Your task to perform on an android device: Go to accessibility settings Image 0: 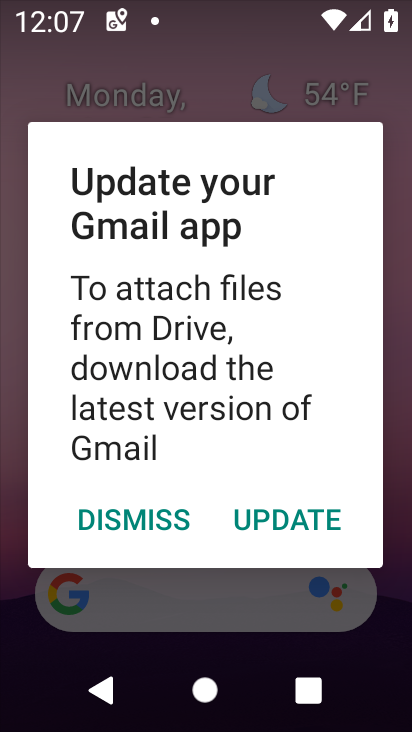
Step 0: press home button
Your task to perform on an android device: Go to accessibility settings Image 1: 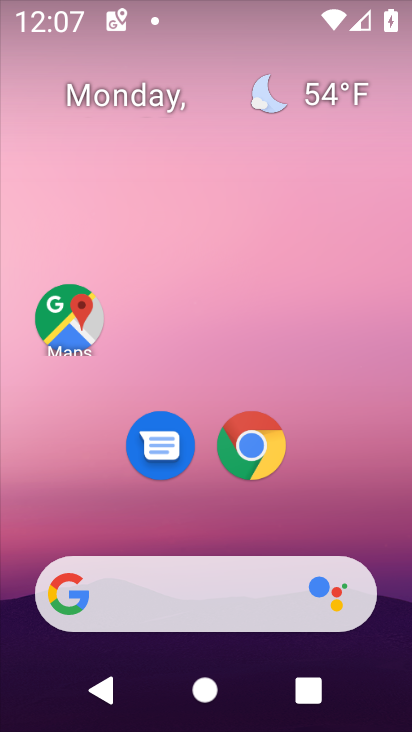
Step 1: drag from (387, 495) to (361, 94)
Your task to perform on an android device: Go to accessibility settings Image 2: 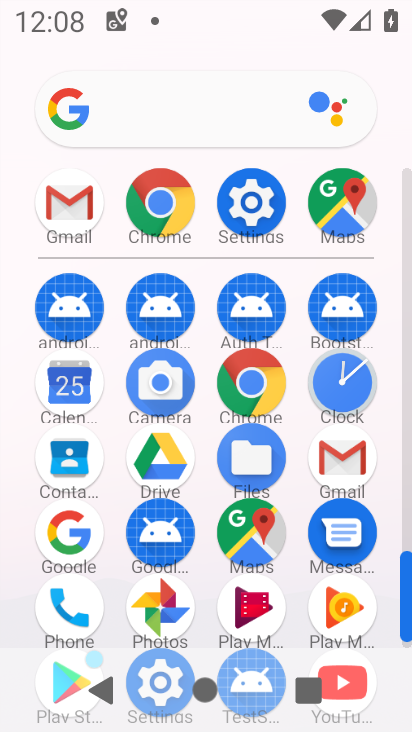
Step 2: click (224, 197)
Your task to perform on an android device: Go to accessibility settings Image 3: 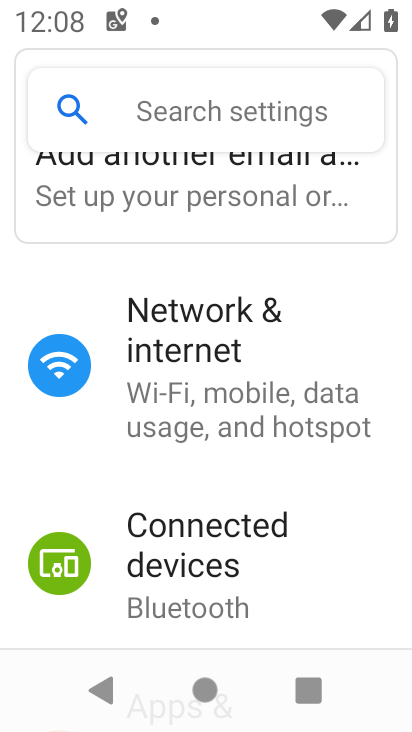
Step 3: drag from (268, 312) to (289, 595)
Your task to perform on an android device: Go to accessibility settings Image 4: 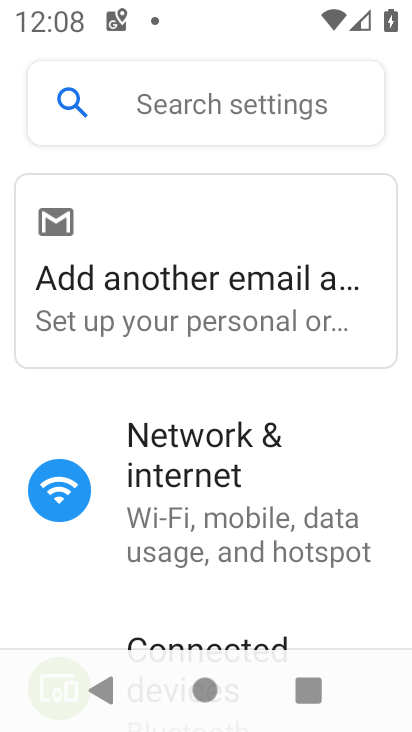
Step 4: drag from (340, 627) to (338, 253)
Your task to perform on an android device: Go to accessibility settings Image 5: 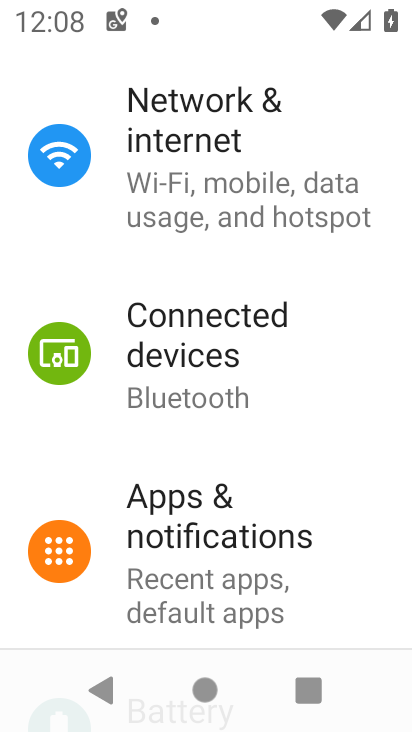
Step 5: drag from (331, 566) to (310, 270)
Your task to perform on an android device: Go to accessibility settings Image 6: 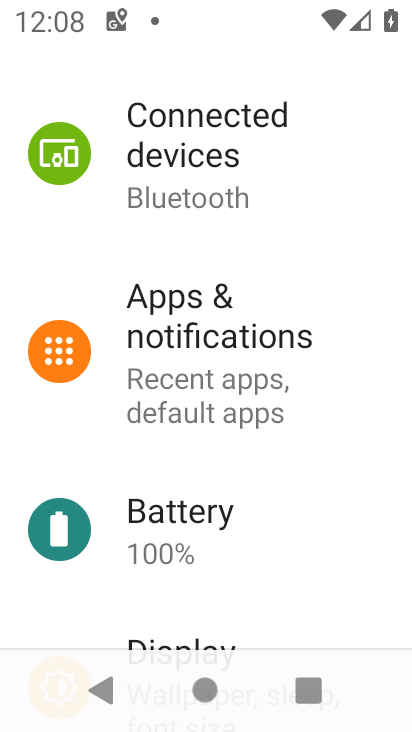
Step 6: drag from (310, 523) to (308, 240)
Your task to perform on an android device: Go to accessibility settings Image 7: 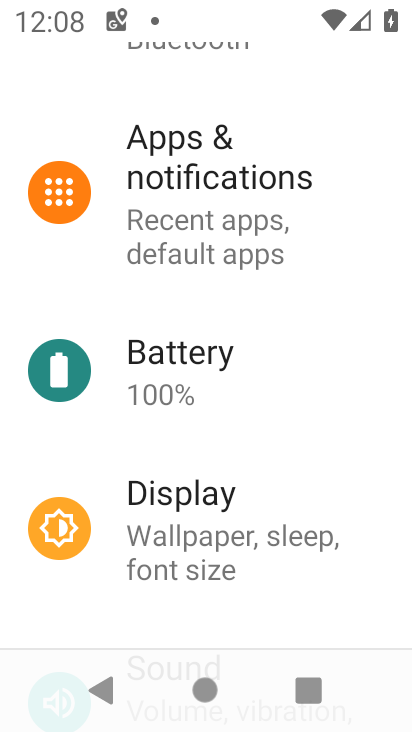
Step 7: drag from (297, 601) to (299, 297)
Your task to perform on an android device: Go to accessibility settings Image 8: 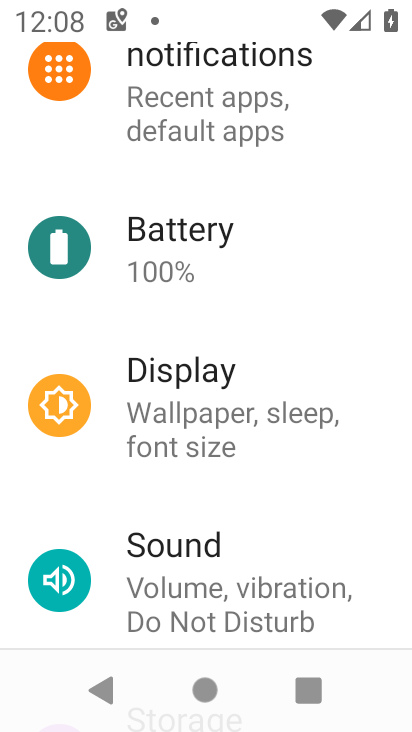
Step 8: drag from (306, 509) to (332, 240)
Your task to perform on an android device: Go to accessibility settings Image 9: 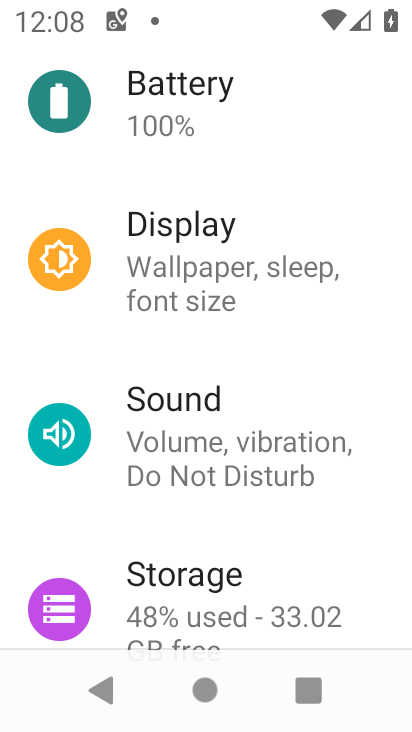
Step 9: drag from (332, 565) to (315, 222)
Your task to perform on an android device: Go to accessibility settings Image 10: 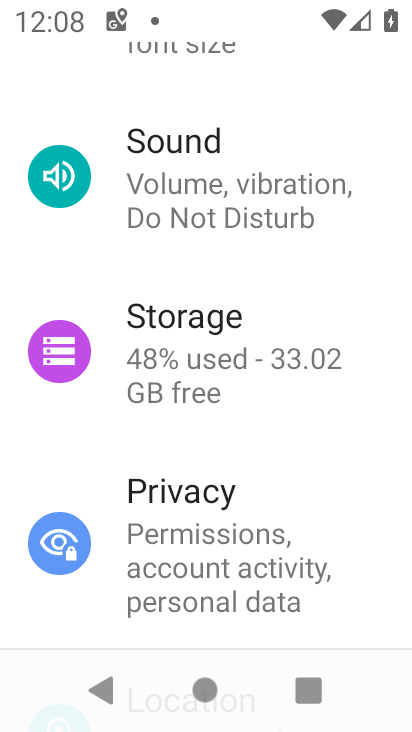
Step 10: drag from (329, 545) to (313, 147)
Your task to perform on an android device: Go to accessibility settings Image 11: 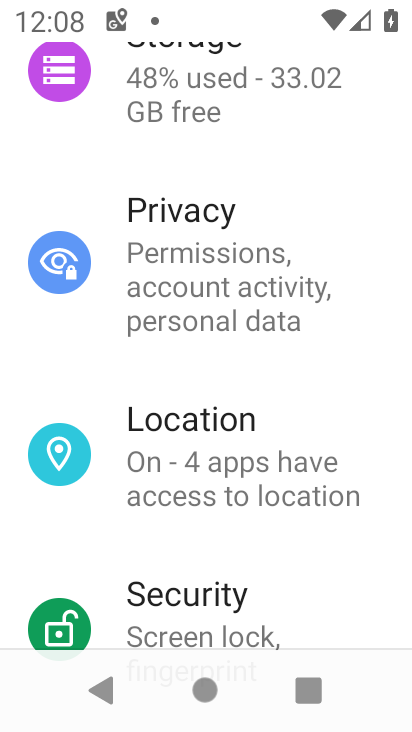
Step 11: drag from (299, 579) to (319, 253)
Your task to perform on an android device: Go to accessibility settings Image 12: 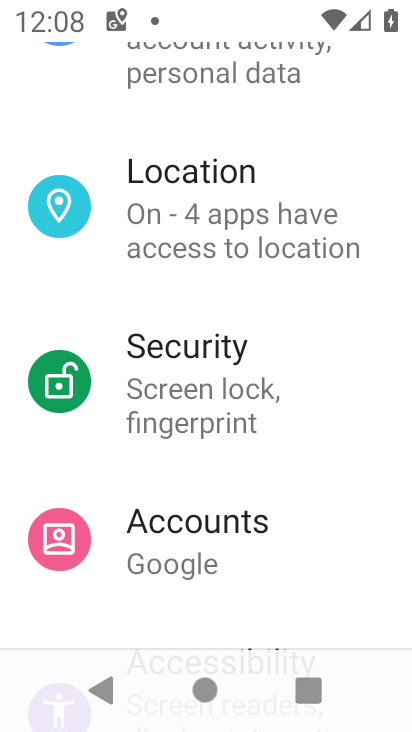
Step 12: drag from (328, 501) to (336, 313)
Your task to perform on an android device: Go to accessibility settings Image 13: 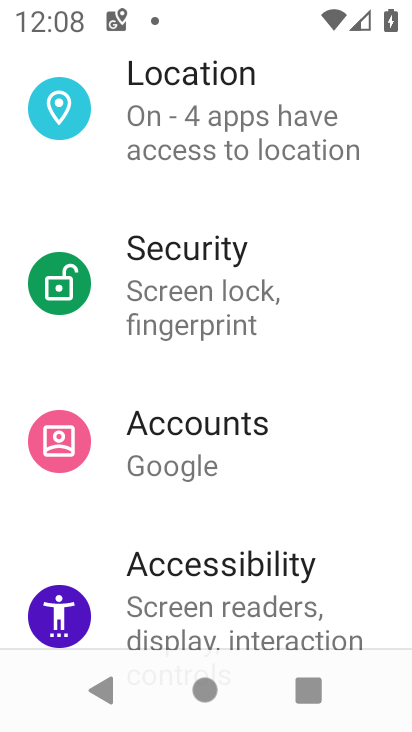
Step 13: drag from (352, 592) to (352, 288)
Your task to perform on an android device: Go to accessibility settings Image 14: 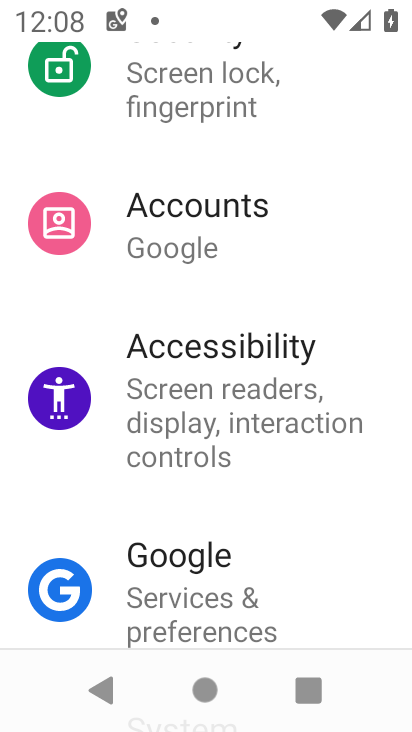
Step 14: drag from (308, 526) to (327, 287)
Your task to perform on an android device: Go to accessibility settings Image 15: 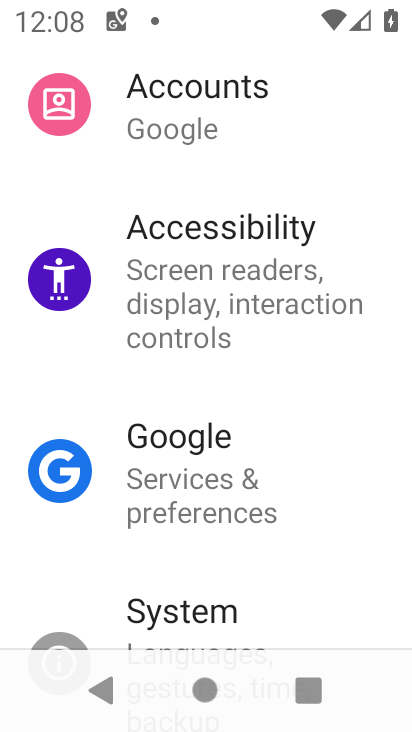
Step 15: drag from (310, 559) to (322, 234)
Your task to perform on an android device: Go to accessibility settings Image 16: 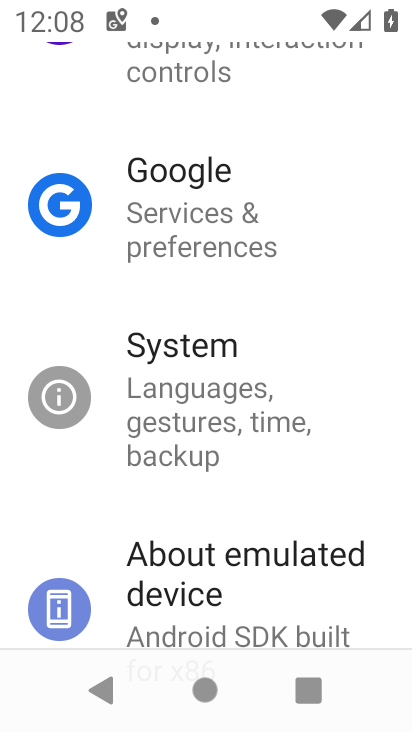
Step 16: drag from (342, 594) to (326, 292)
Your task to perform on an android device: Go to accessibility settings Image 17: 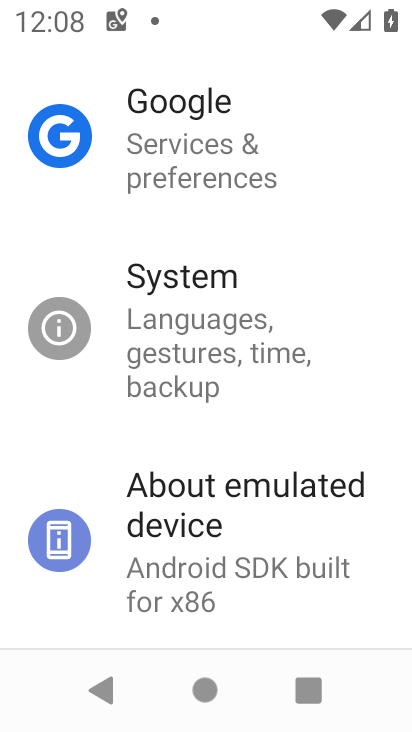
Step 17: drag from (272, 206) to (275, 541)
Your task to perform on an android device: Go to accessibility settings Image 18: 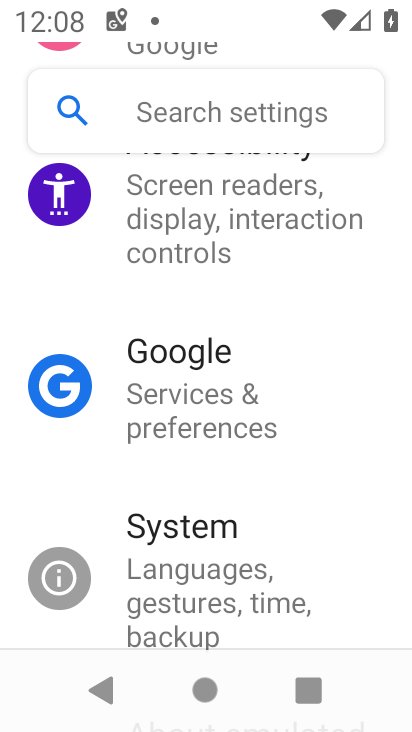
Step 18: drag from (278, 319) to (295, 529)
Your task to perform on an android device: Go to accessibility settings Image 19: 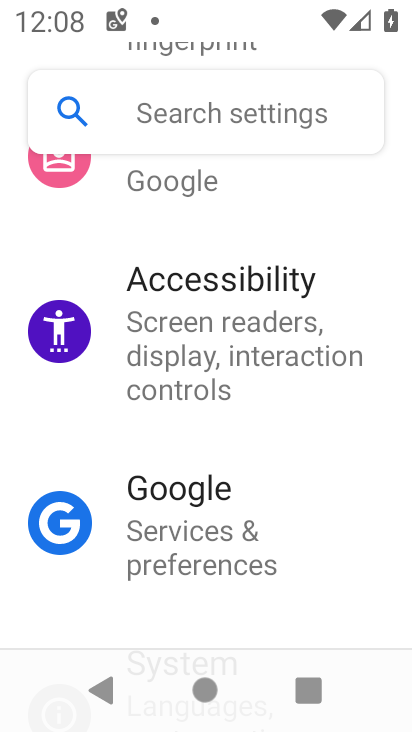
Step 19: click (250, 316)
Your task to perform on an android device: Go to accessibility settings Image 20: 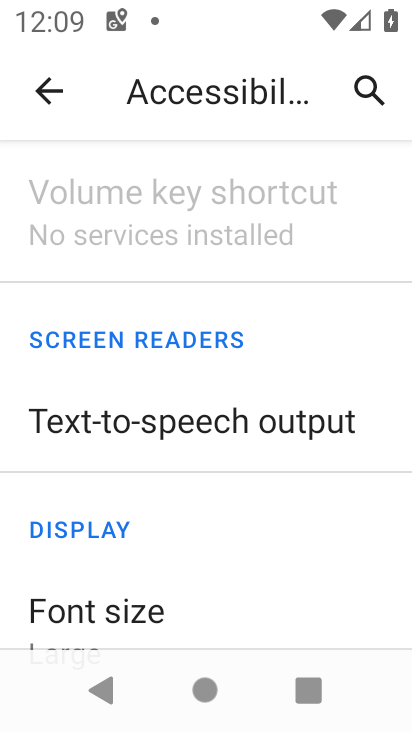
Step 20: task complete